Your task to perform on an android device: Open Google Image 0: 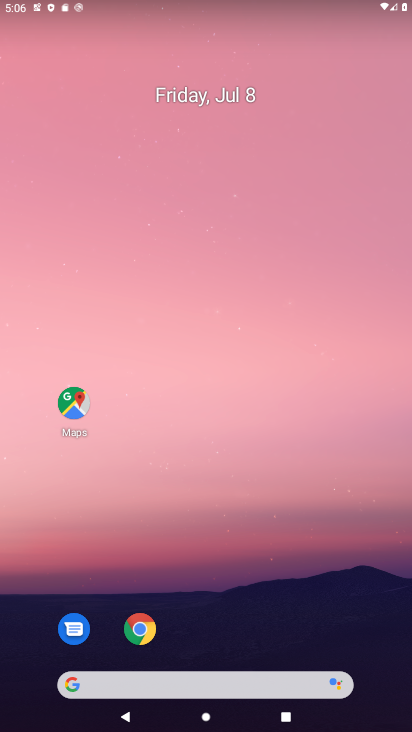
Step 0: press home button
Your task to perform on an android device: Open Google Image 1: 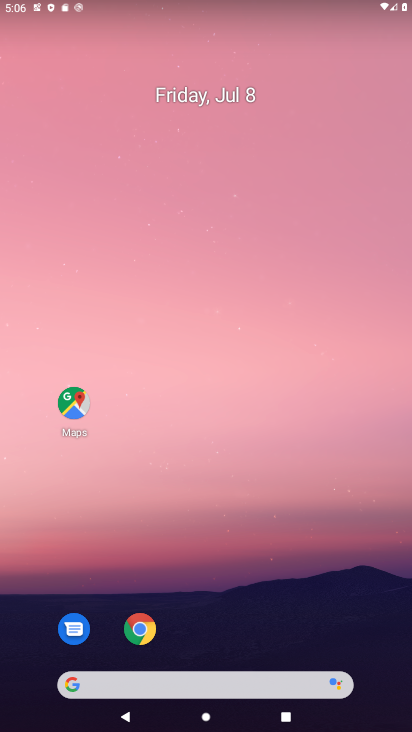
Step 1: click (70, 679)
Your task to perform on an android device: Open Google Image 2: 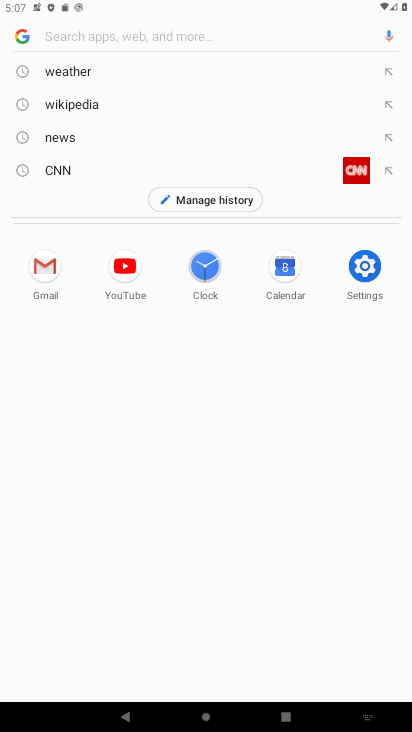
Step 2: task complete